Your task to perform on an android device: Go to network settings Image 0: 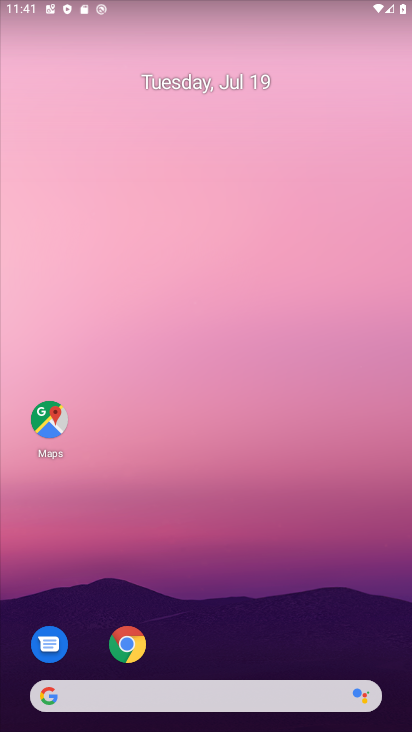
Step 0: drag from (188, 715) to (367, 73)
Your task to perform on an android device: Go to network settings Image 1: 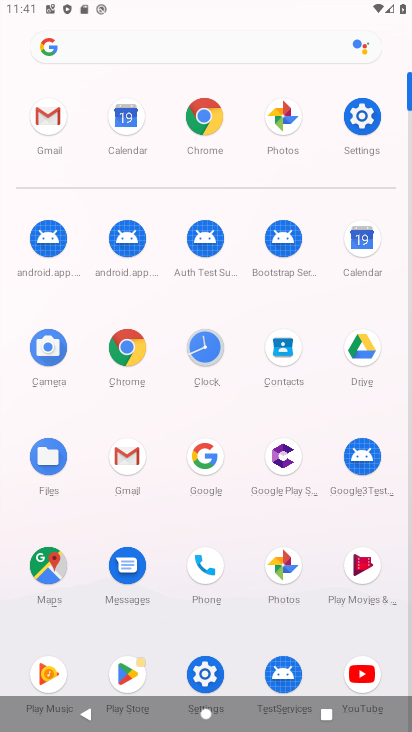
Step 1: click (373, 97)
Your task to perform on an android device: Go to network settings Image 2: 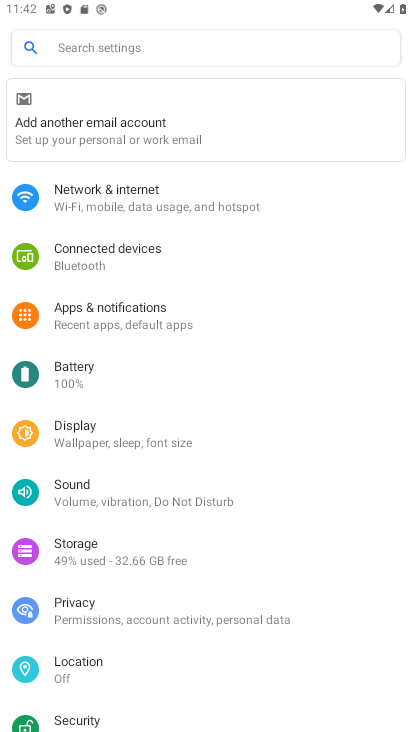
Step 2: click (85, 207)
Your task to perform on an android device: Go to network settings Image 3: 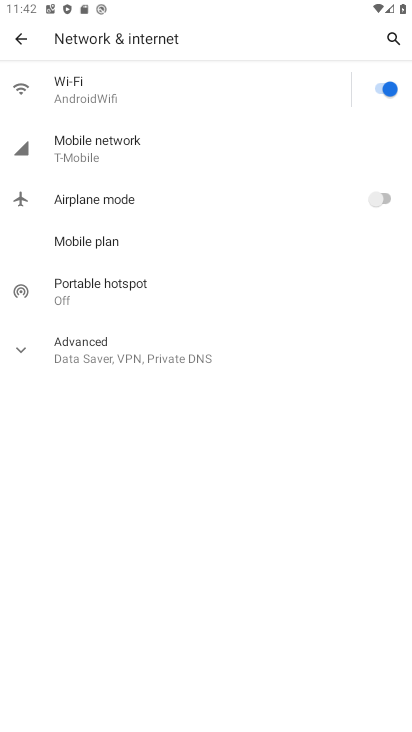
Step 3: task complete